Your task to perform on an android device: Go to CNN.com Image 0: 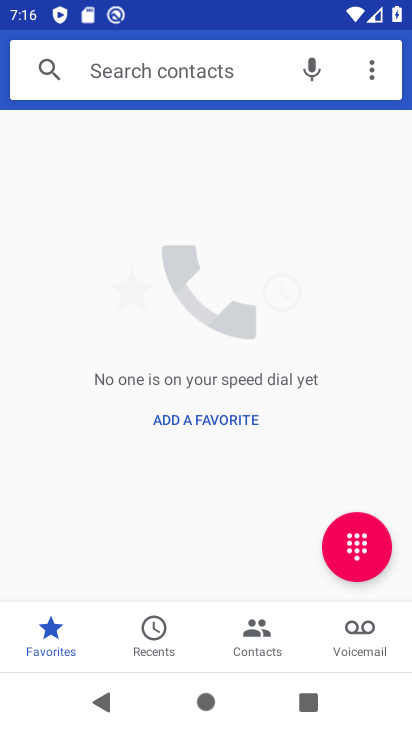
Step 0: press home button
Your task to perform on an android device: Go to CNN.com Image 1: 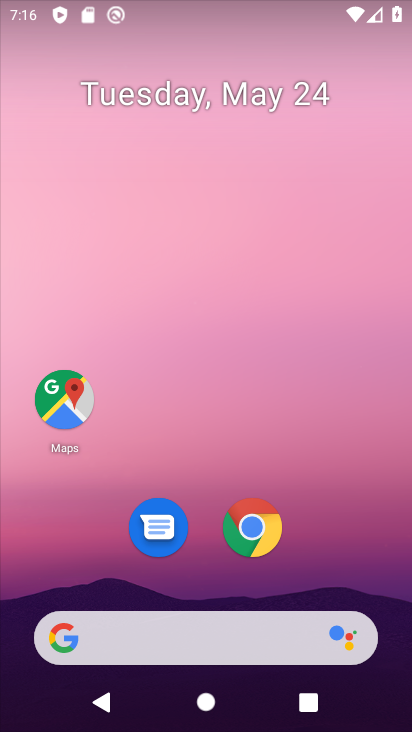
Step 1: click (250, 507)
Your task to perform on an android device: Go to CNN.com Image 2: 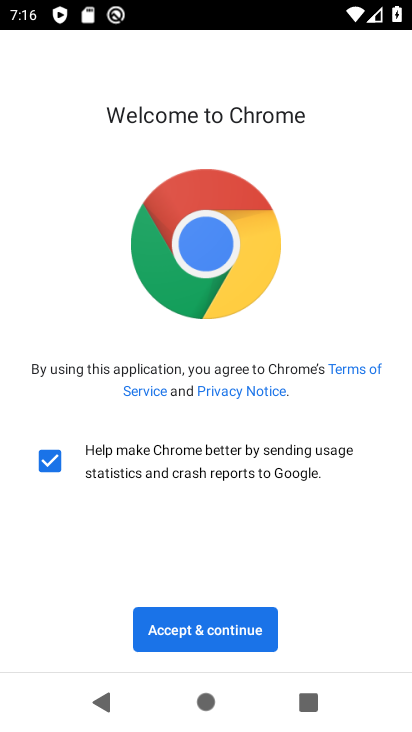
Step 2: click (225, 626)
Your task to perform on an android device: Go to CNN.com Image 3: 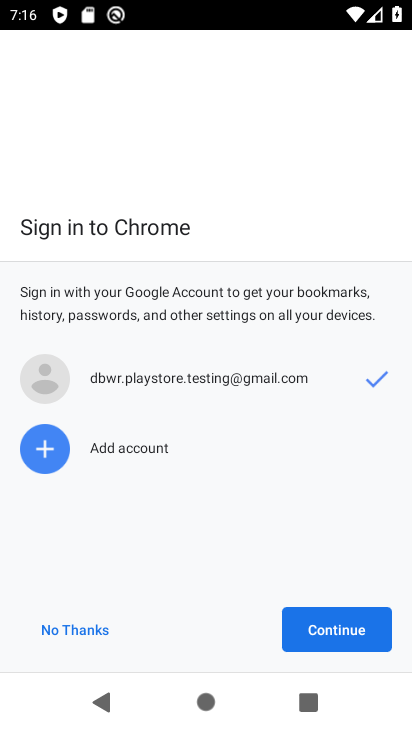
Step 3: click (342, 617)
Your task to perform on an android device: Go to CNN.com Image 4: 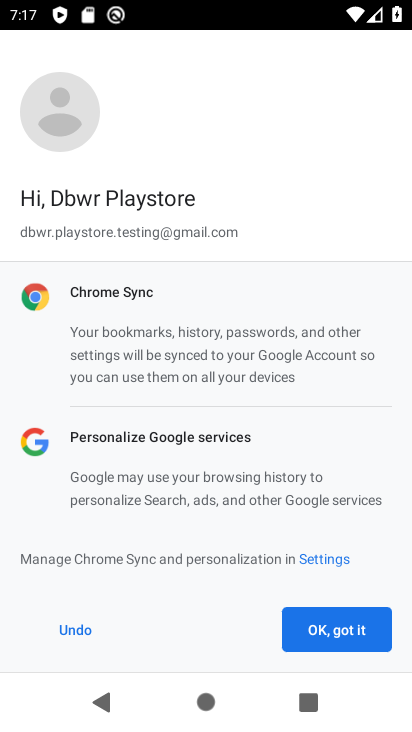
Step 4: click (351, 625)
Your task to perform on an android device: Go to CNN.com Image 5: 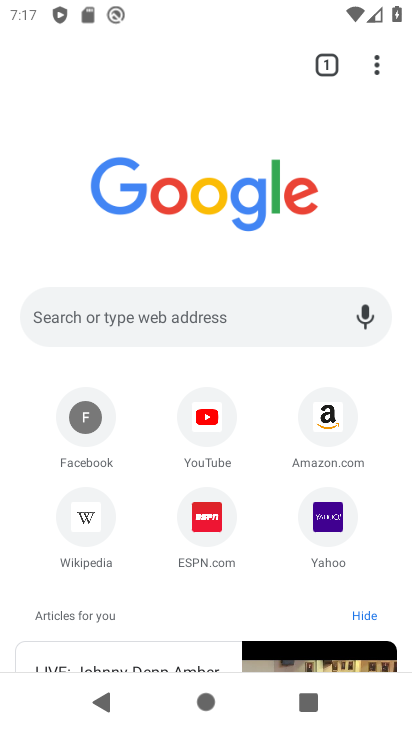
Step 5: click (177, 318)
Your task to perform on an android device: Go to CNN.com Image 6: 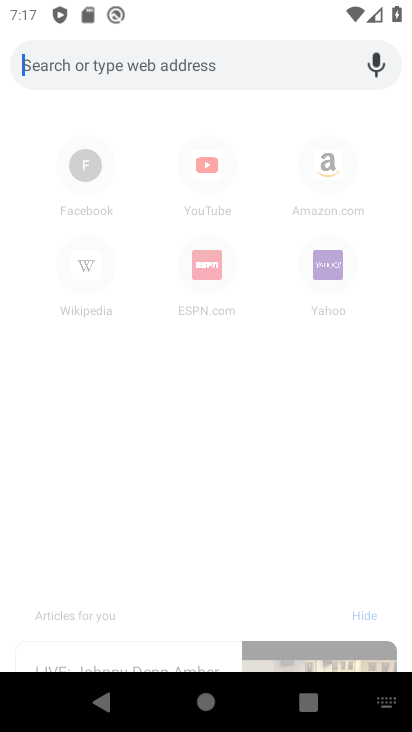
Step 6: type "CNN.com"
Your task to perform on an android device: Go to CNN.com Image 7: 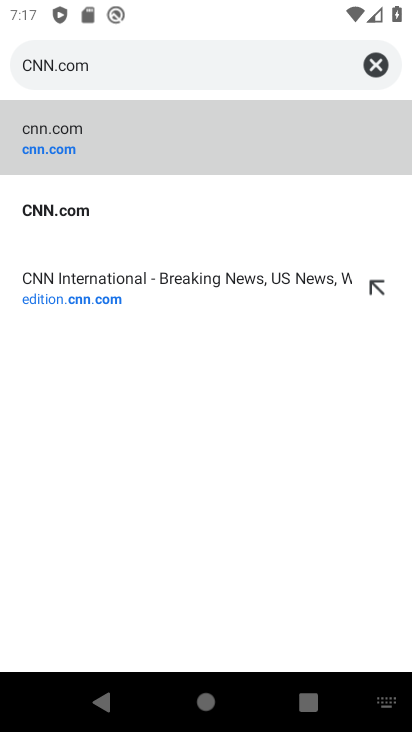
Step 7: click (237, 126)
Your task to perform on an android device: Go to CNN.com Image 8: 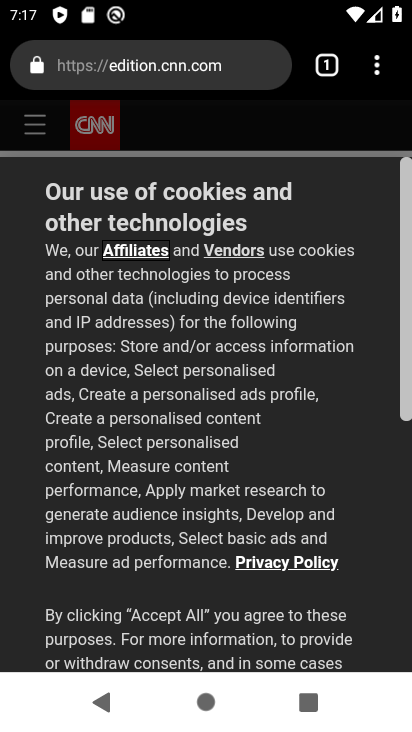
Step 8: task complete